Your task to perform on an android device: open app "Google Translate" Image 0: 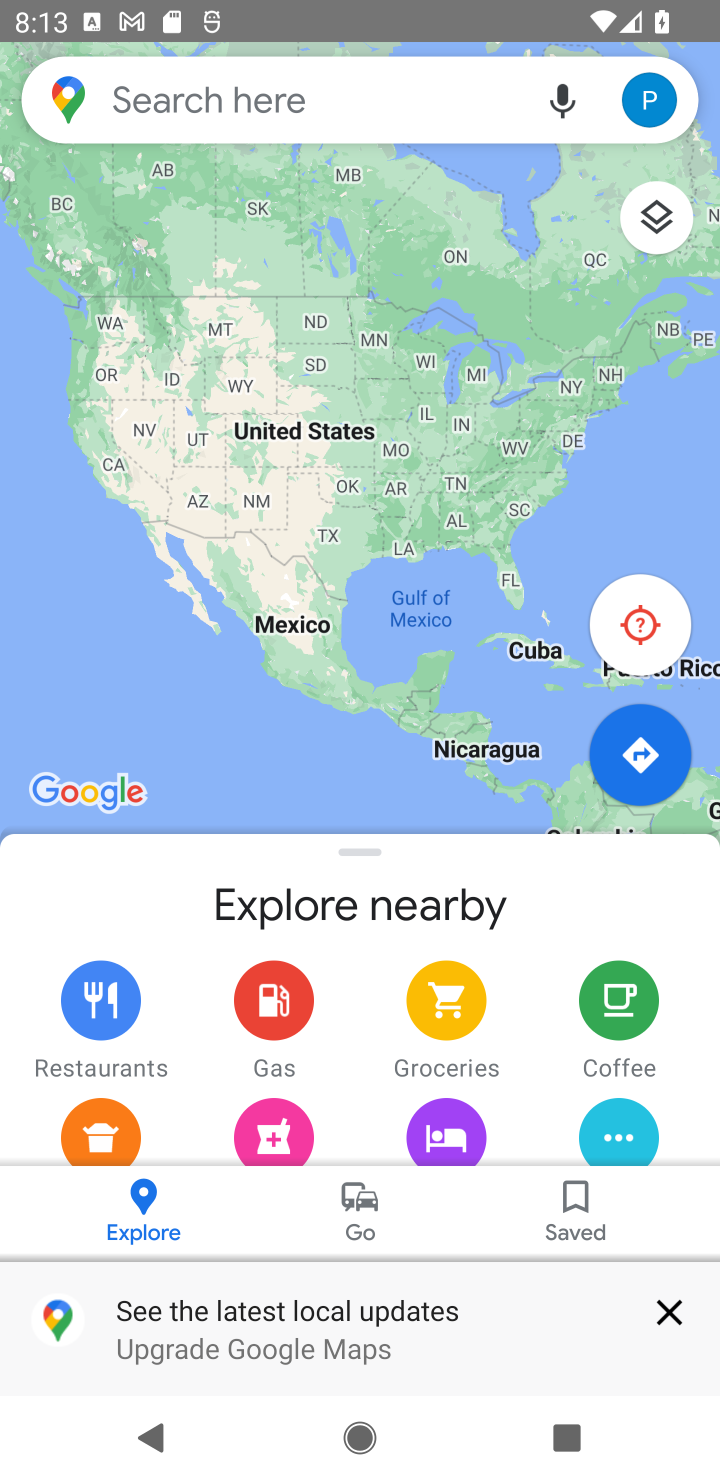
Step 0: press home button
Your task to perform on an android device: open app "Google Translate" Image 1: 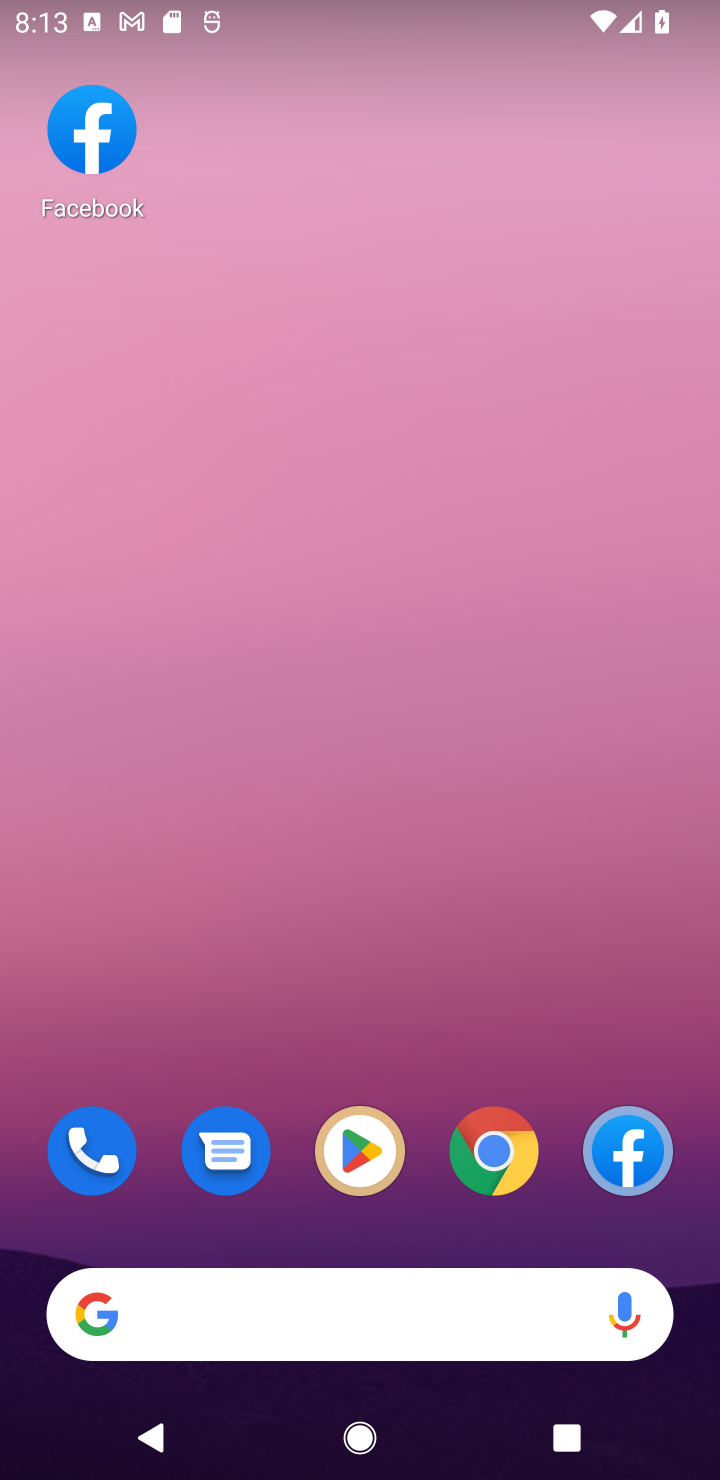
Step 1: click (364, 1146)
Your task to perform on an android device: open app "Google Translate" Image 2: 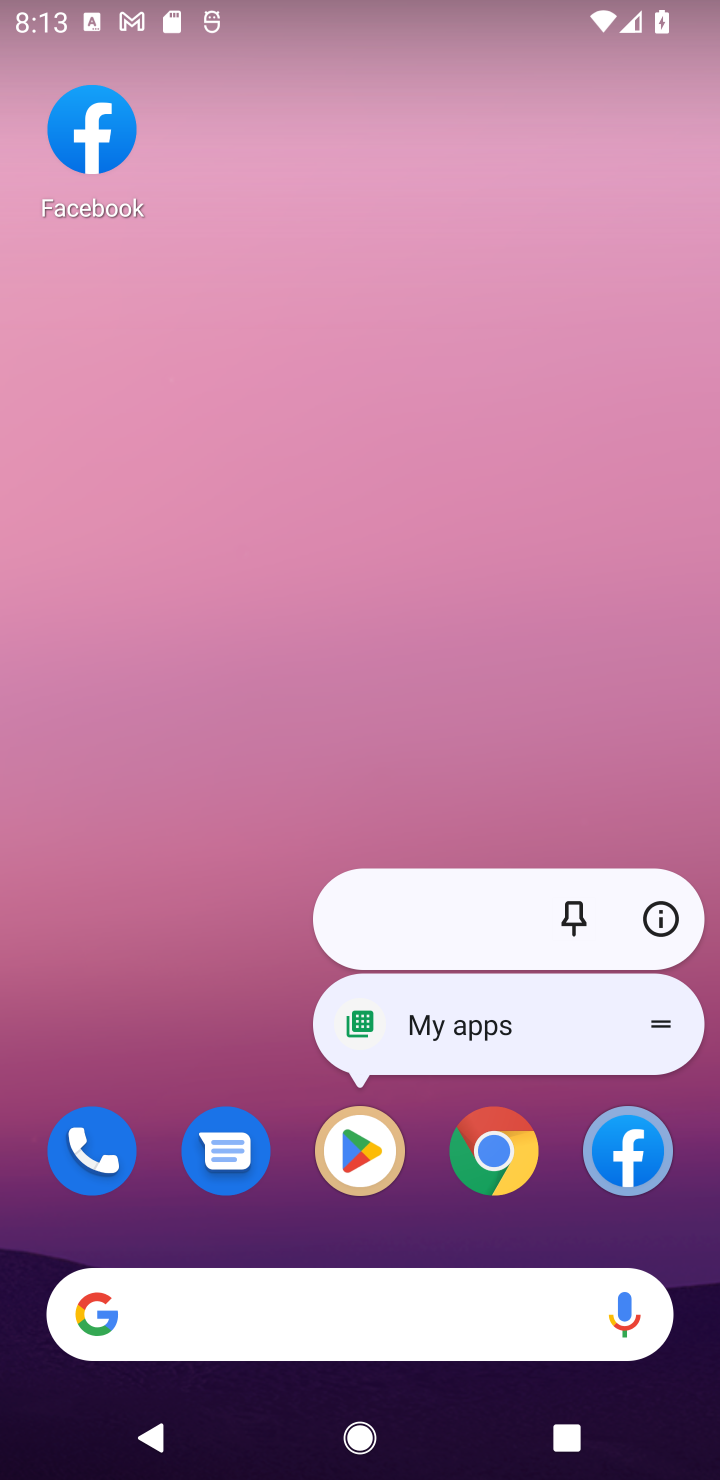
Step 2: click (364, 1144)
Your task to perform on an android device: open app "Google Translate" Image 3: 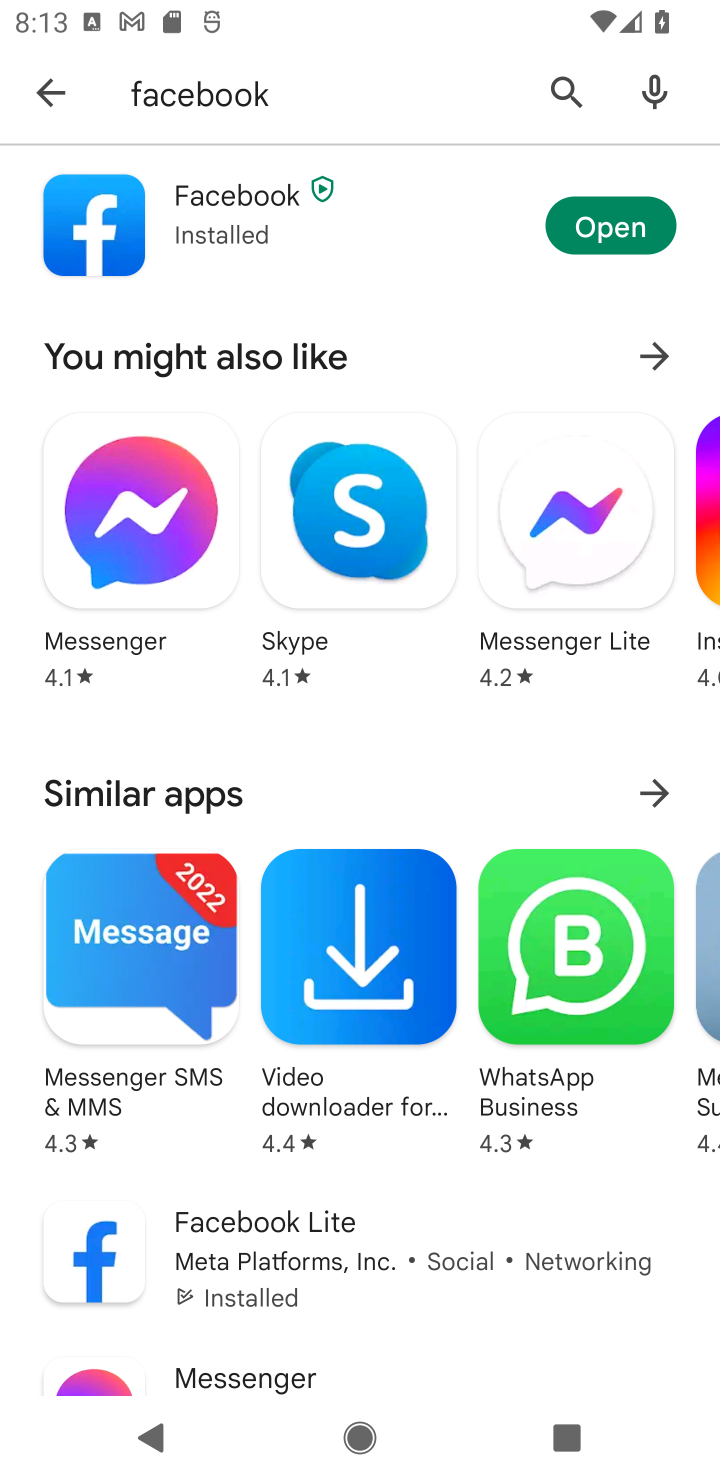
Step 3: click (566, 91)
Your task to perform on an android device: open app "Google Translate" Image 4: 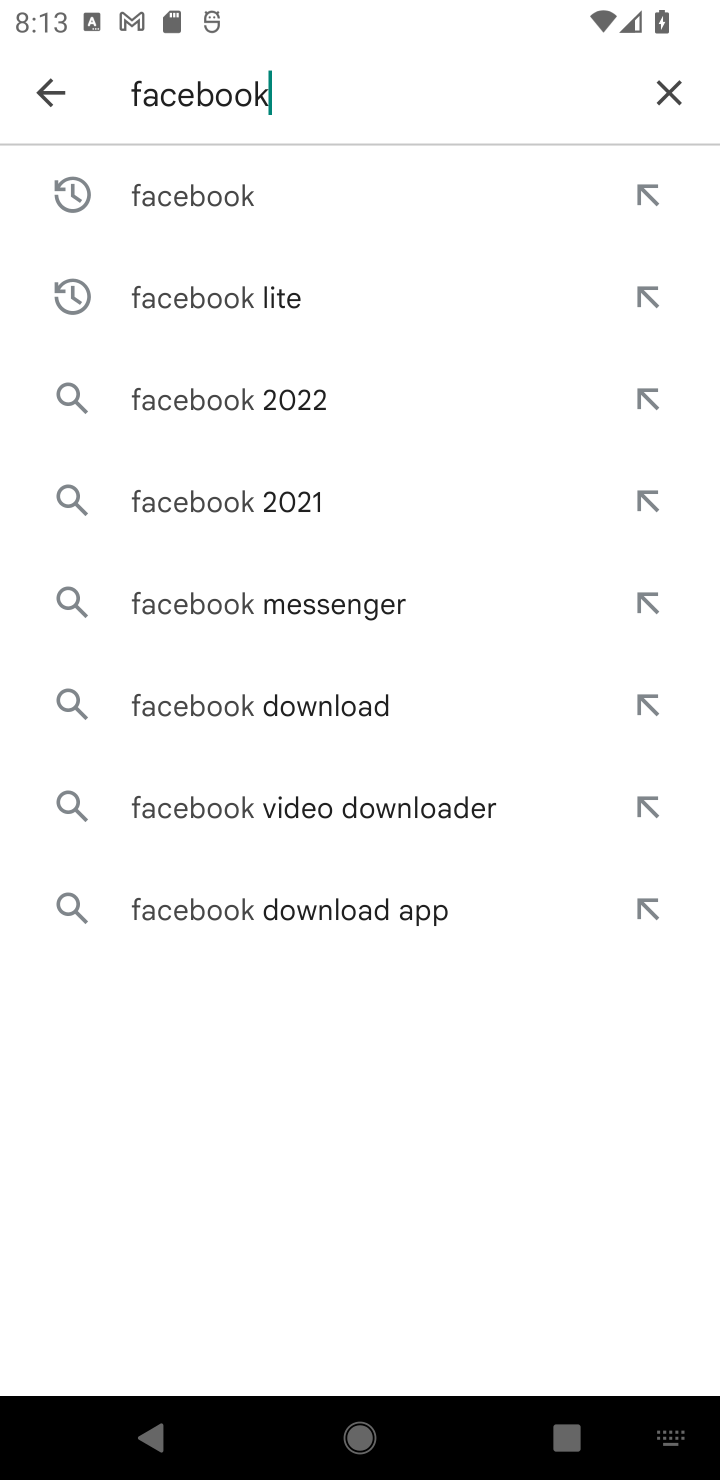
Step 4: click (662, 91)
Your task to perform on an android device: open app "Google Translate" Image 5: 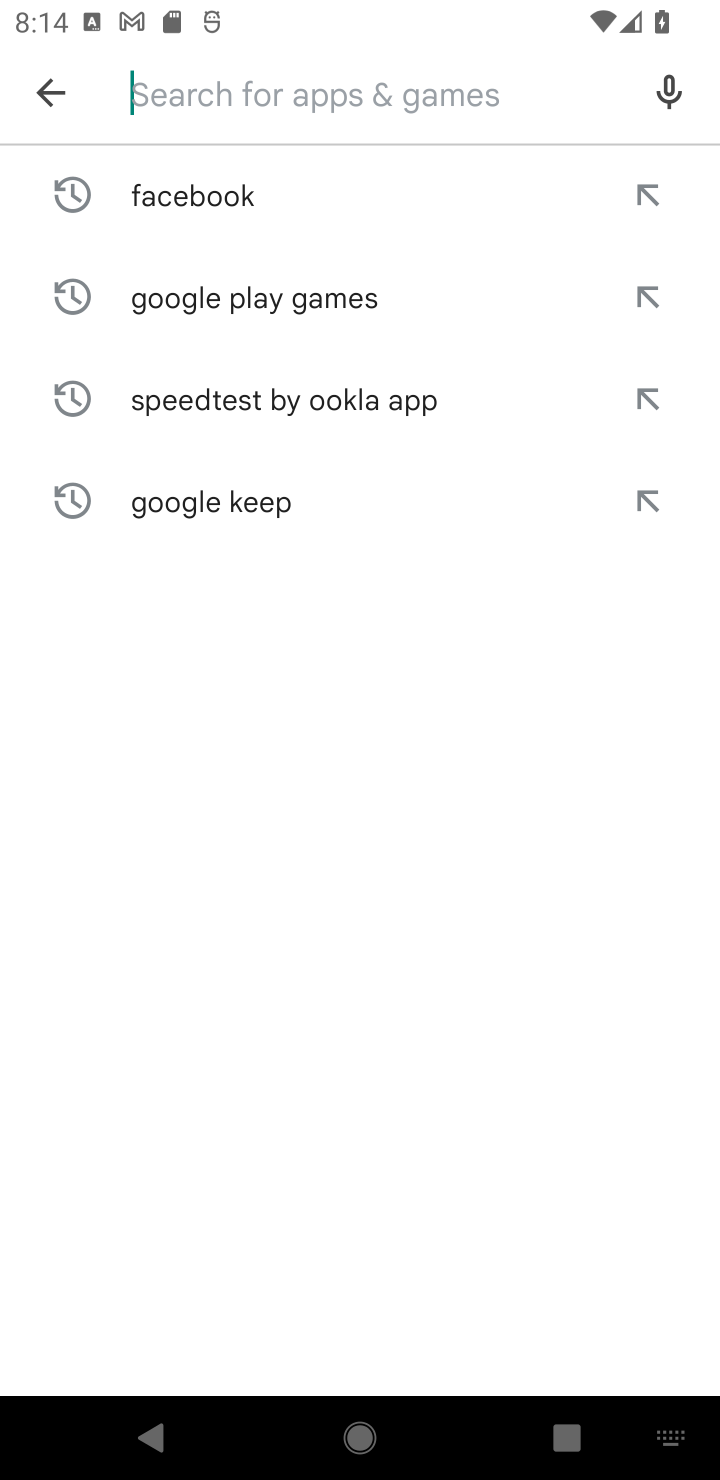
Step 5: type "Google Translate"
Your task to perform on an android device: open app "Google Translate" Image 6: 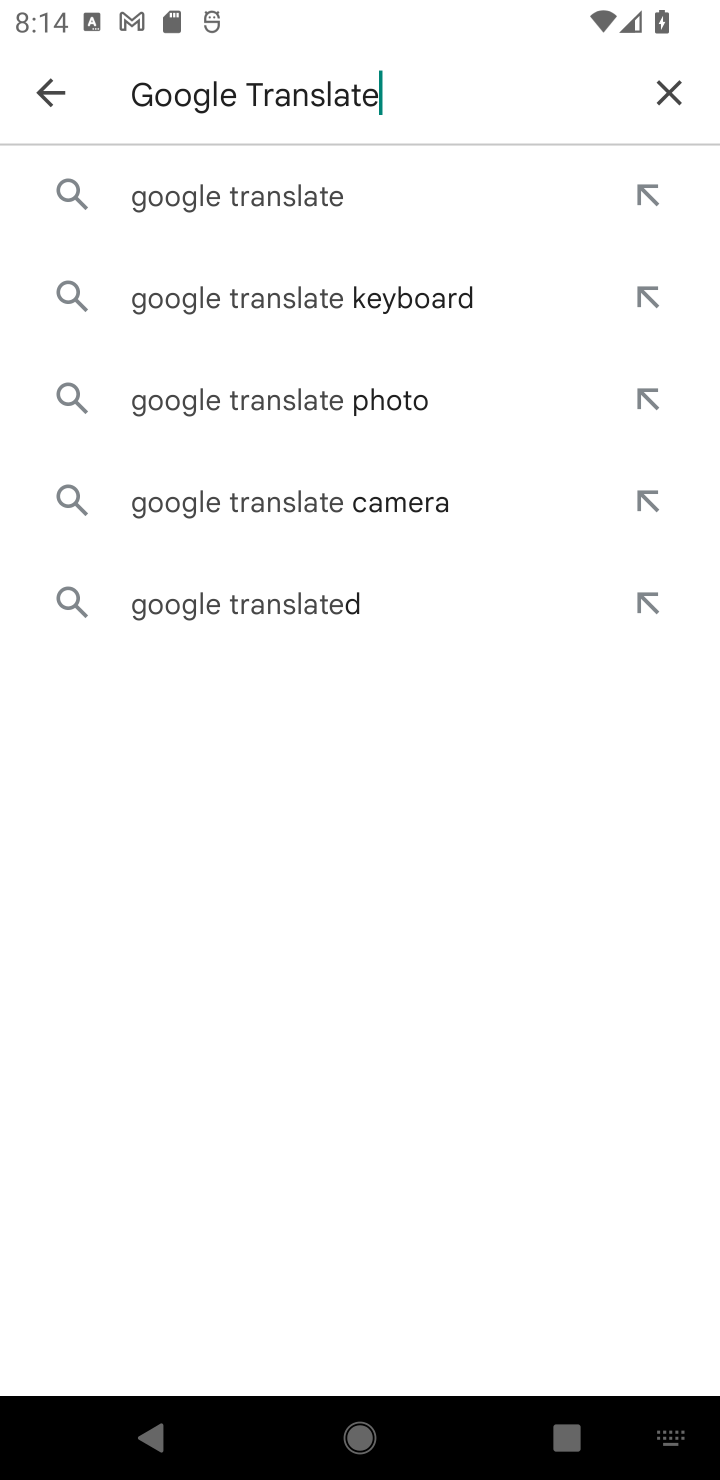
Step 6: click (260, 194)
Your task to perform on an android device: open app "Google Translate" Image 7: 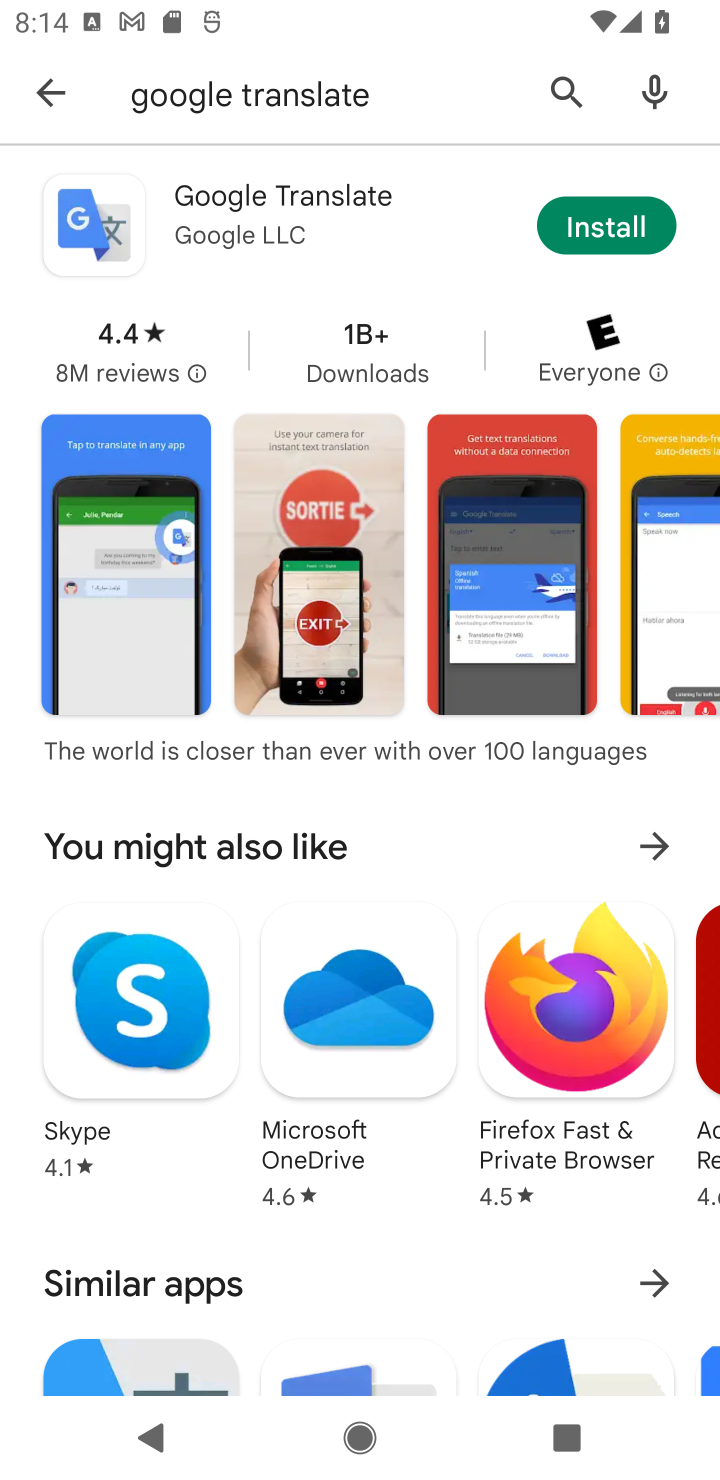
Step 7: task complete